Your task to perform on an android device: Set the phone to "Do not disturb". Image 0: 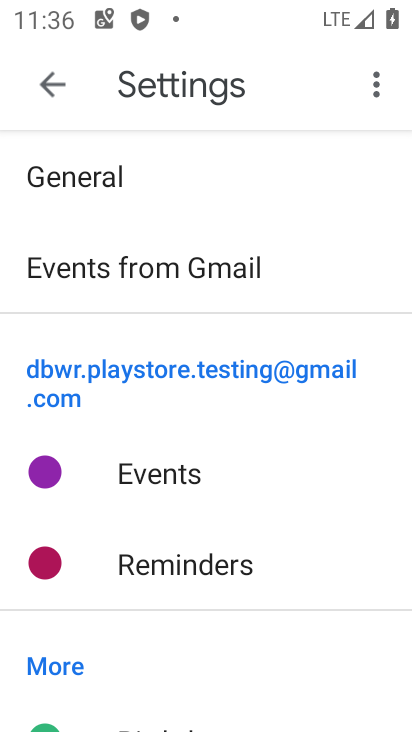
Step 0: press home button
Your task to perform on an android device: Set the phone to "Do not disturb". Image 1: 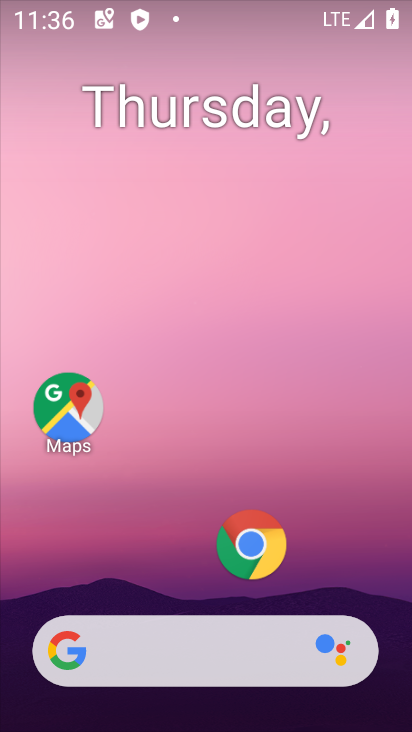
Step 1: drag from (132, 15) to (207, 629)
Your task to perform on an android device: Set the phone to "Do not disturb". Image 2: 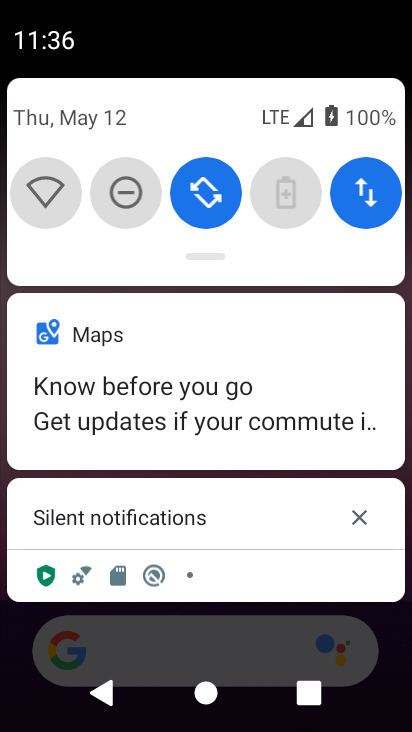
Step 2: click (128, 201)
Your task to perform on an android device: Set the phone to "Do not disturb". Image 3: 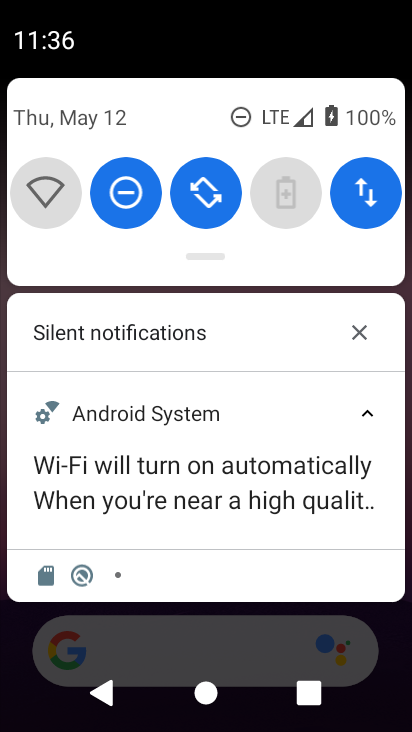
Step 3: task complete